Your task to perform on an android device: Empty the shopping cart on bestbuy. Add macbook air to the cart on bestbuy Image 0: 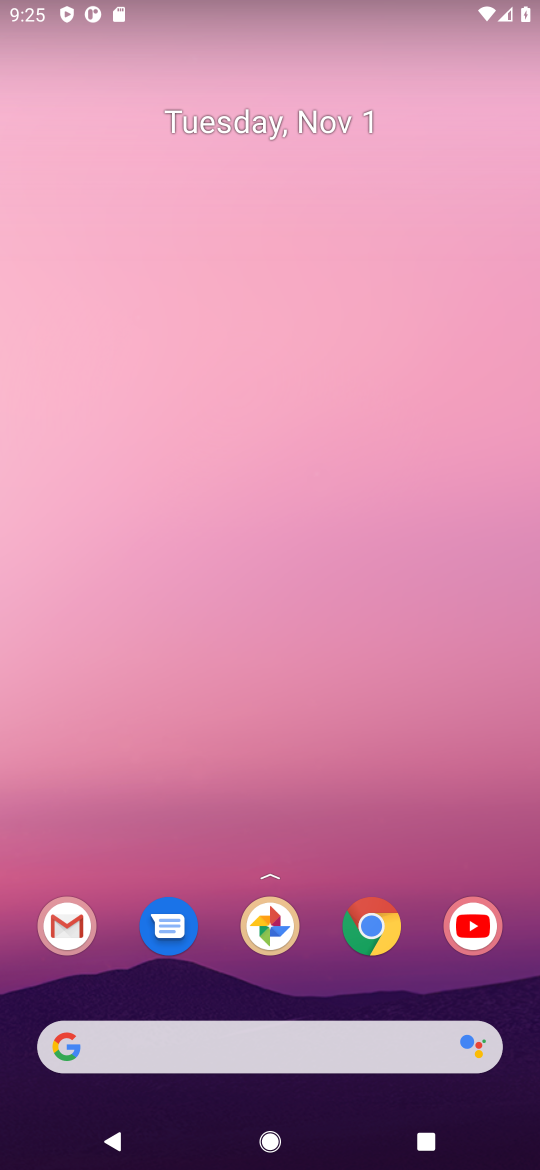
Step 0: click (357, 930)
Your task to perform on an android device: Empty the shopping cart on bestbuy. Add macbook air to the cart on bestbuy Image 1: 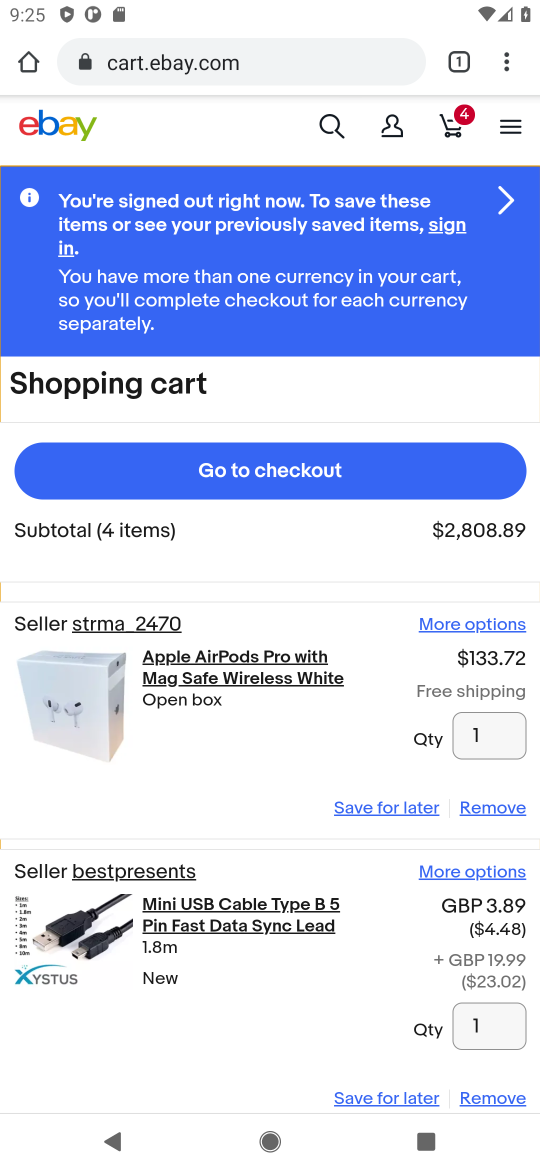
Step 1: click (158, 65)
Your task to perform on an android device: Empty the shopping cart on bestbuy. Add macbook air to the cart on bestbuy Image 2: 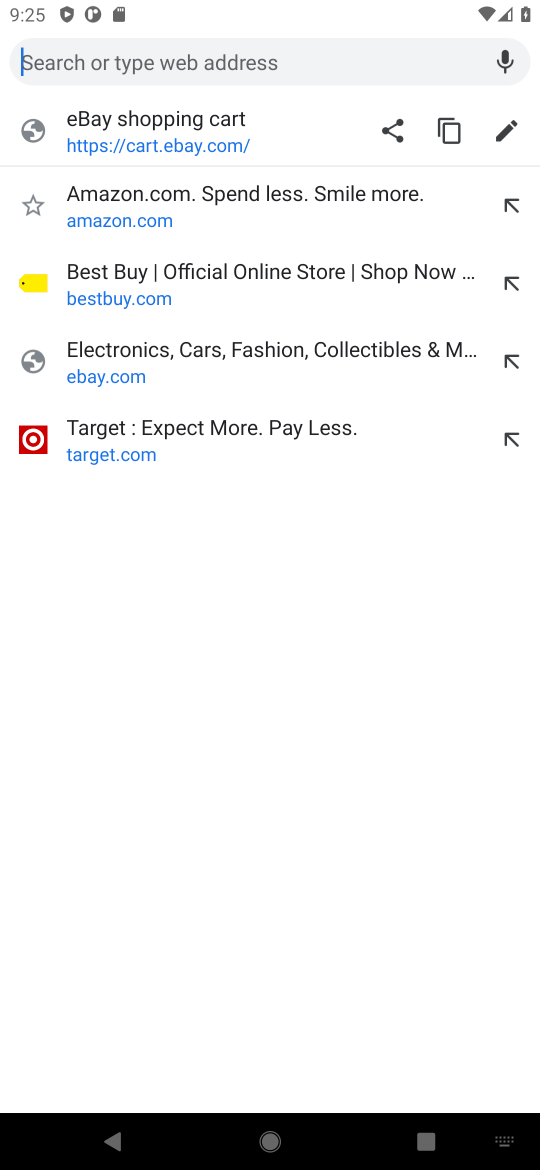
Step 2: click (103, 282)
Your task to perform on an android device: Empty the shopping cart on bestbuy. Add macbook air to the cart on bestbuy Image 3: 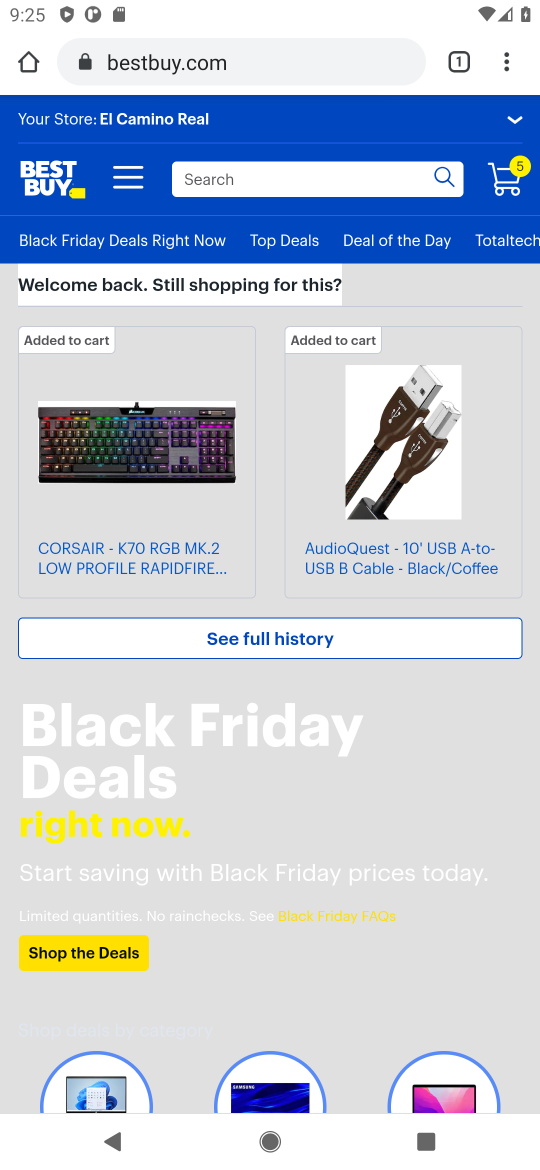
Step 3: click (264, 188)
Your task to perform on an android device: Empty the shopping cart on bestbuy. Add macbook air to the cart on bestbuy Image 4: 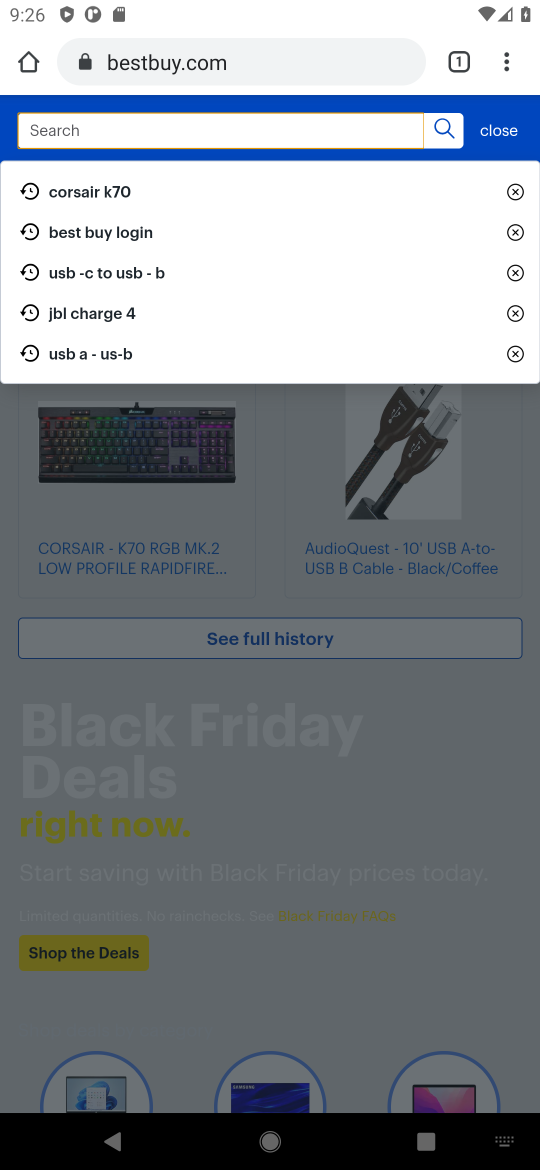
Step 4: type "mackbook air"
Your task to perform on an android device: Empty the shopping cart on bestbuy. Add macbook air to the cart on bestbuy Image 5: 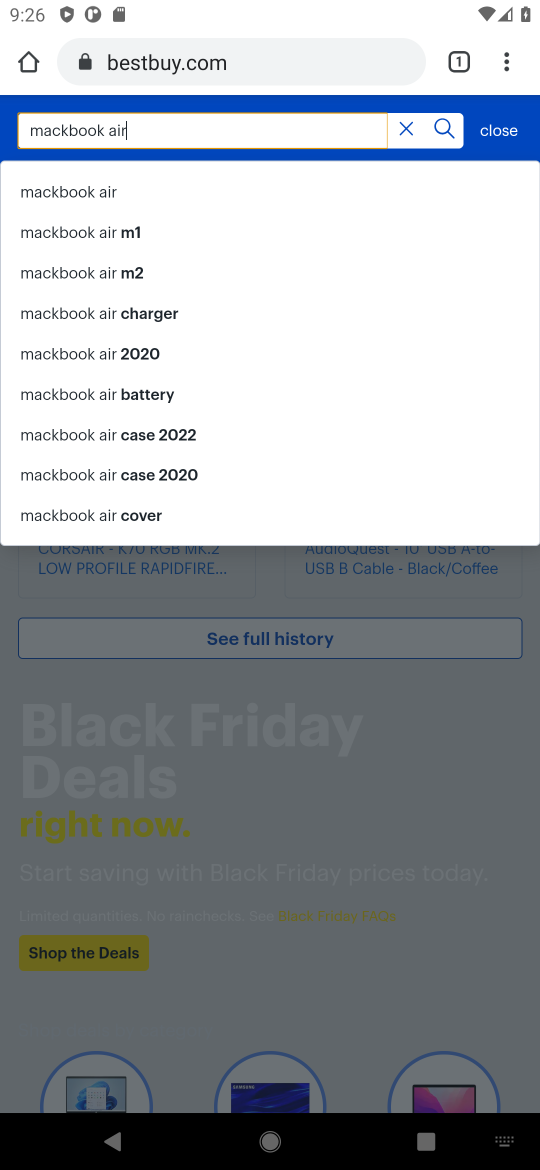
Step 5: type ""
Your task to perform on an android device: Empty the shopping cart on bestbuy. Add macbook air to the cart on bestbuy Image 6: 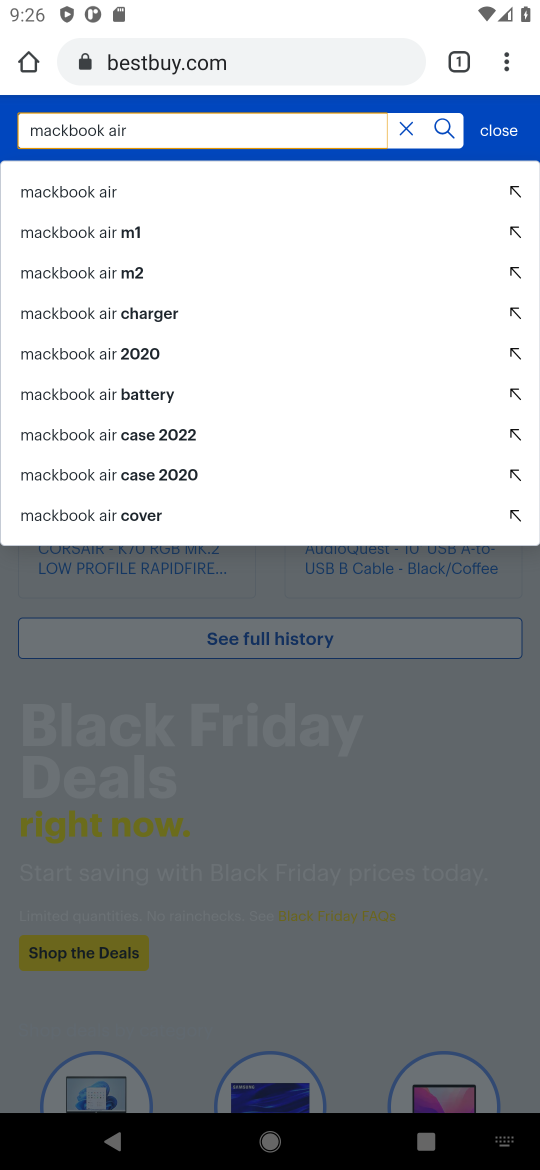
Step 6: click (28, 197)
Your task to perform on an android device: Empty the shopping cart on bestbuy. Add macbook air to the cart on bestbuy Image 7: 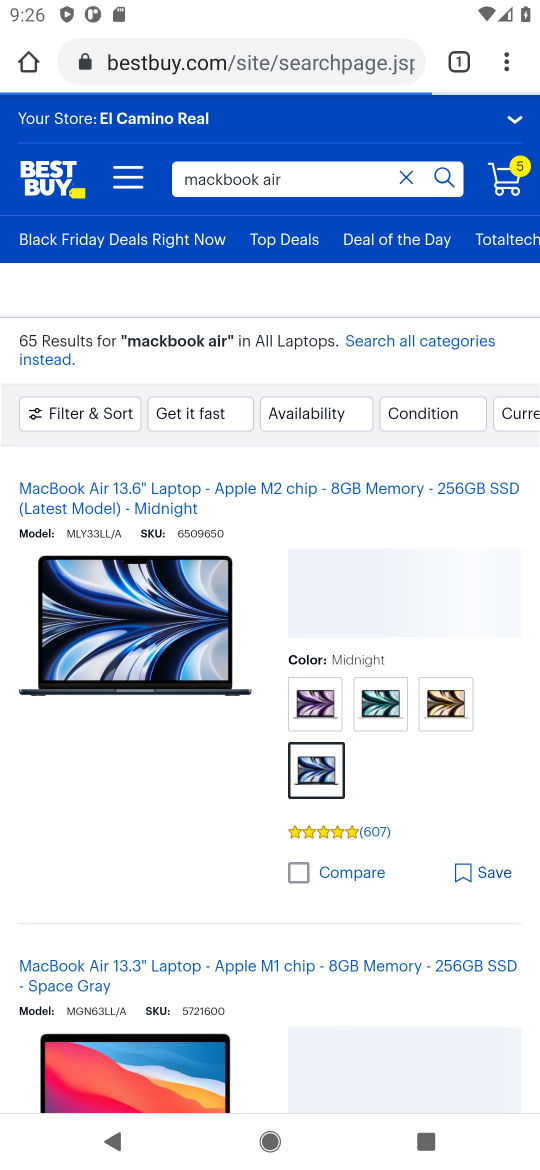
Step 7: click (128, 639)
Your task to perform on an android device: Empty the shopping cart on bestbuy. Add macbook air to the cart on bestbuy Image 8: 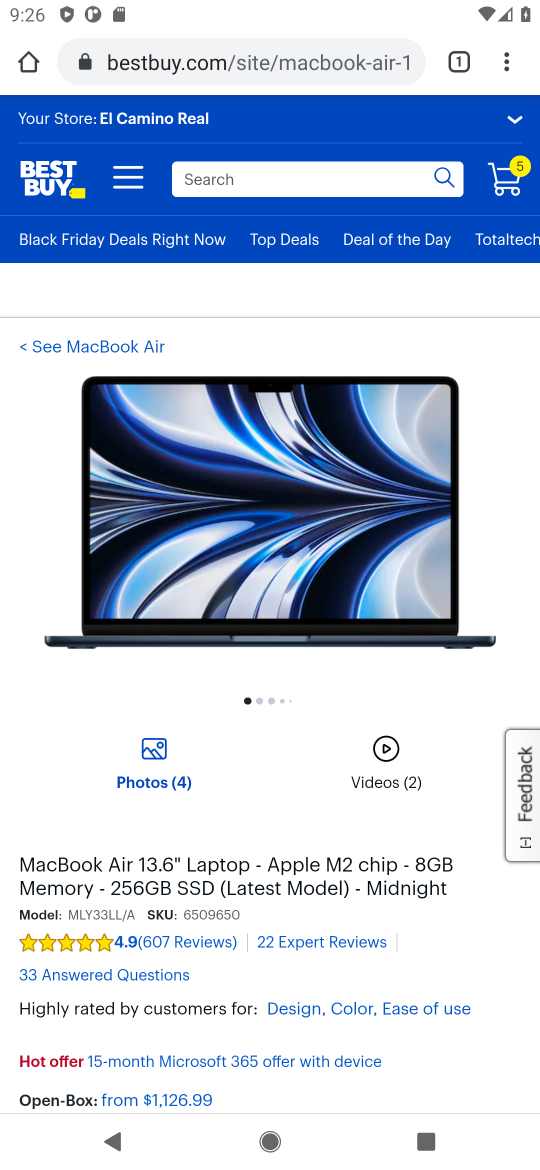
Step 8: drag from (331, 844) to (420, 189)
Your task to perform on an android device: Empty the shopping cart on bestbuy. Add macbook air to the cart on bestbuy Image 9: 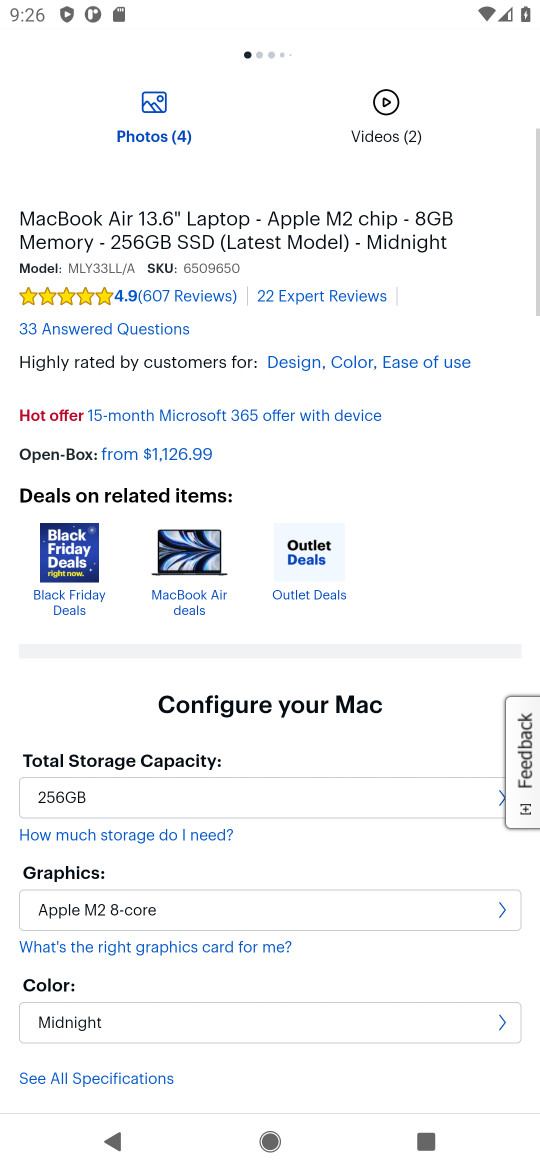
Step 9: drag from (196, 965) to (277, 219)
Your task to perform on an android device: Empty the shopping cart on bestbuy. Add macbook air to the cart on bestbuy Image 10: 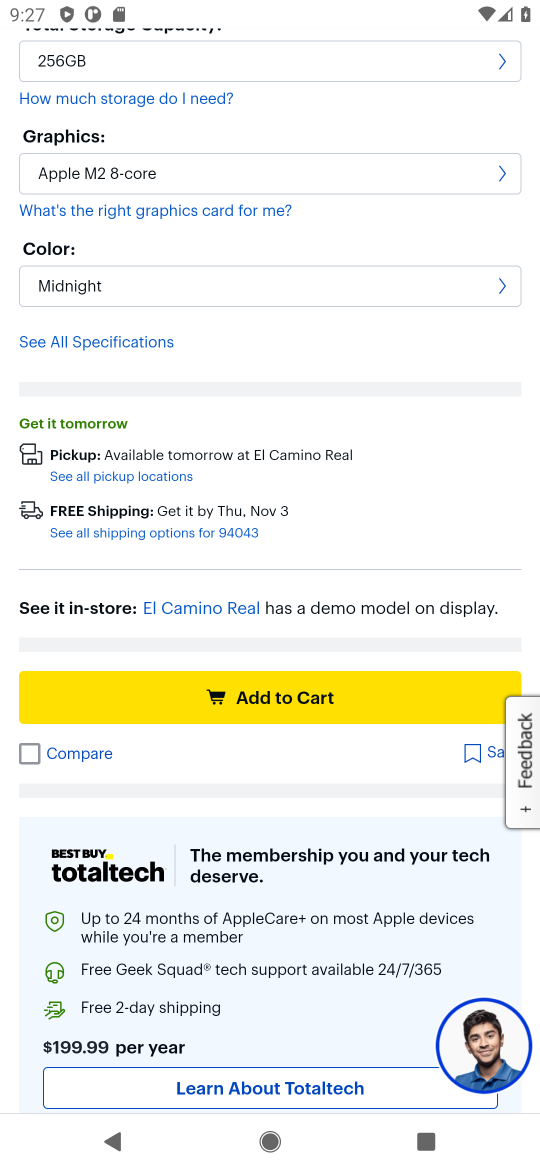
Step 10: click (271, 696)
Your task to perform on an android device: Empty the shopping cart on bestbuy. Add macbook air to the cart on bestbuy Image 11: 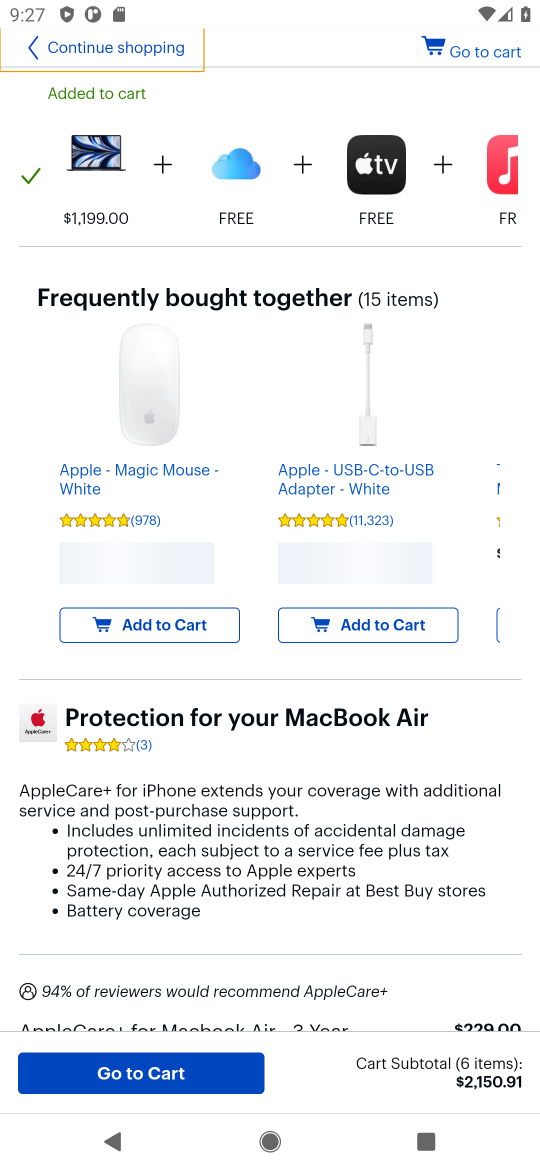
Step 11: task complete